Your task to perform on an android device: Open the stopwatch Image 0: 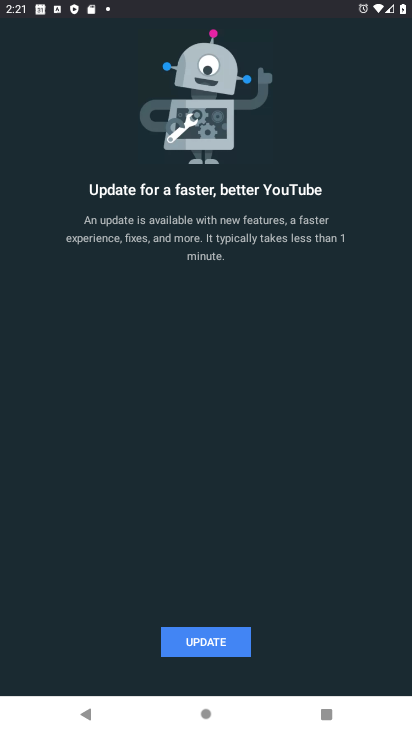
Step 0: press back button
Your task to perform on an android device: Open the stopwatch Image 1: 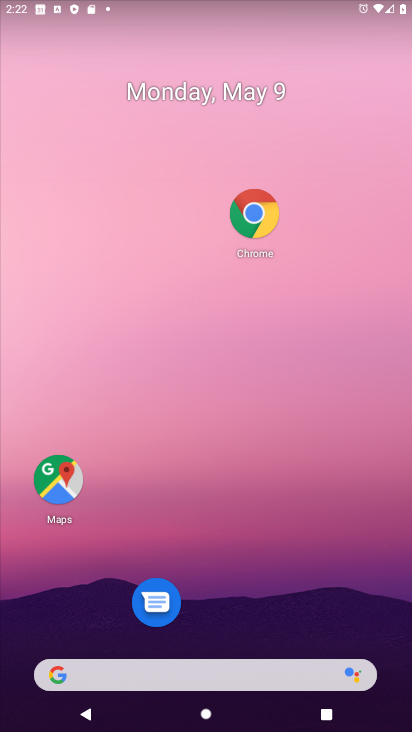
Step 1: drag from (338, 549) to (322, 141)
Your task to perform on an android device: Open the stopwatch Image 2: 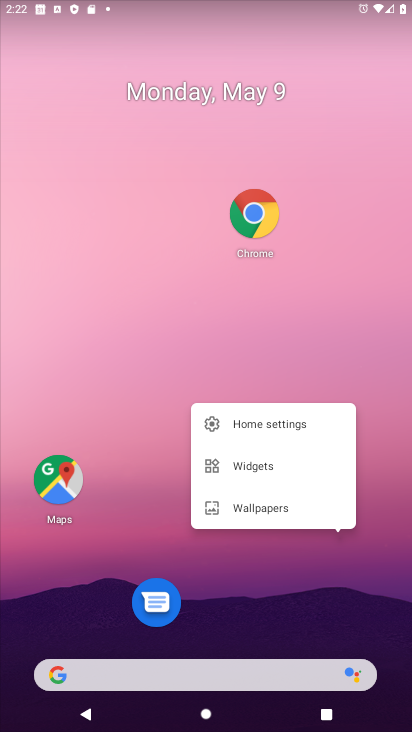
Step 2: click (360, 560)
Your task to perform on an android device: Open the stopwatch Image 3: 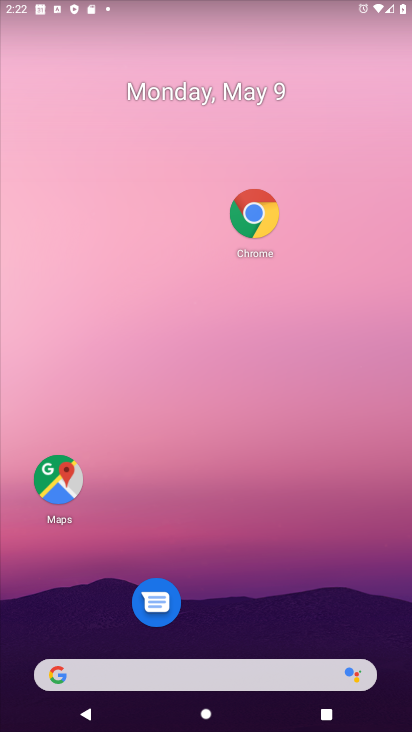
Step 3: drag from (326, 602) to (278, 47)
Your task to perform on an android device: Open the stopwatch Image 4: 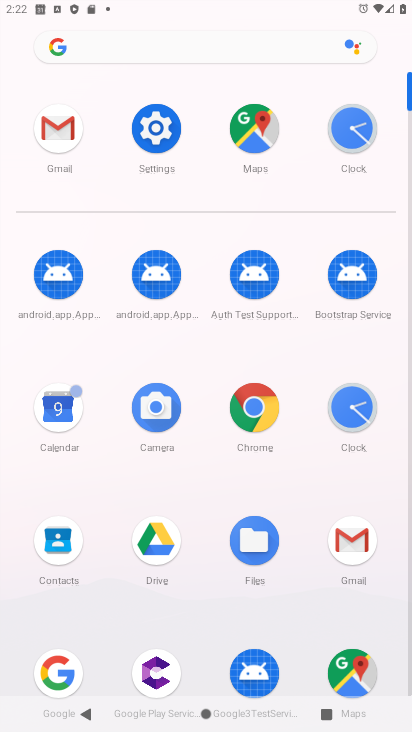
Step 4: click (173, 138)
Your task to perform on an android device: Open the stopwatch Image 5: 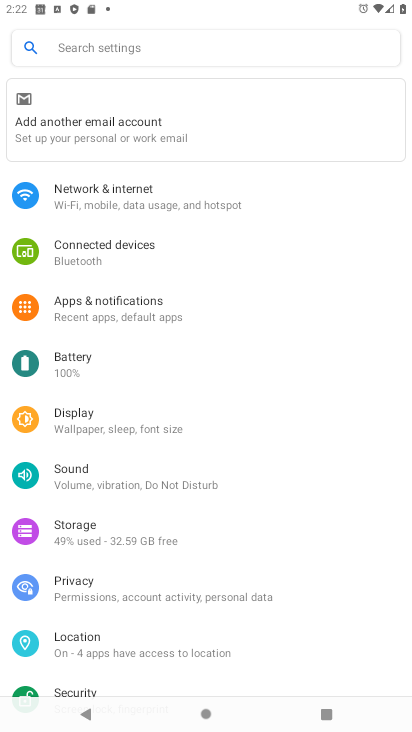
Step 5: press back button
Your task to perform on an android device: Open the stopwatch Image 6: 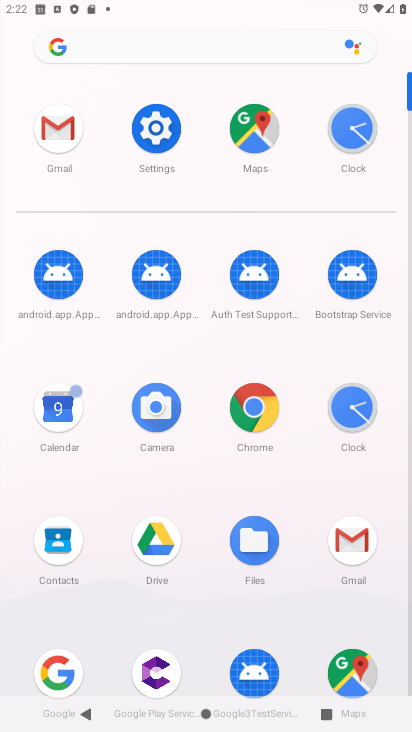
Step 6: click (354, 432)
Your task to perform on an android device: Open the stopwatch Image 7: 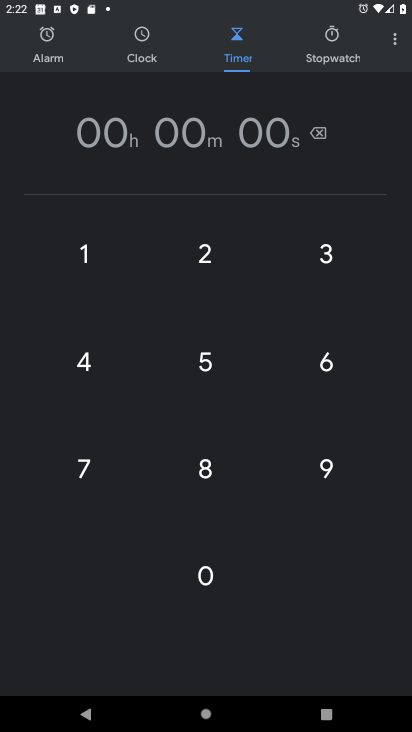
Step 7: click (340, 50)
Your task to perform on an android device: Open the stopwatch Image 8: 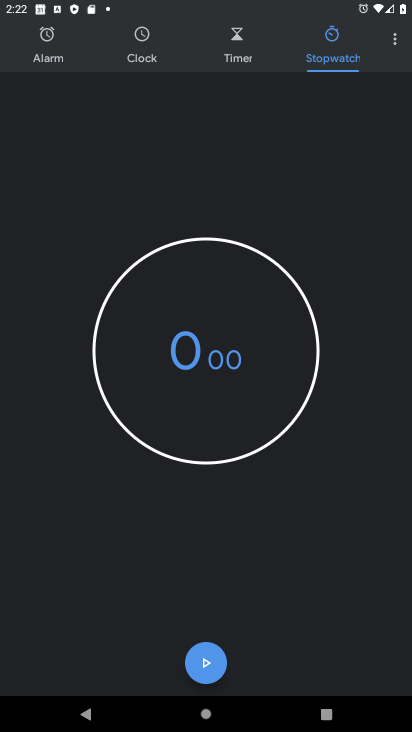
Step 8: task complete